Your task to perform on an android device: see tabs open on other devices in the chrome app Image 0: 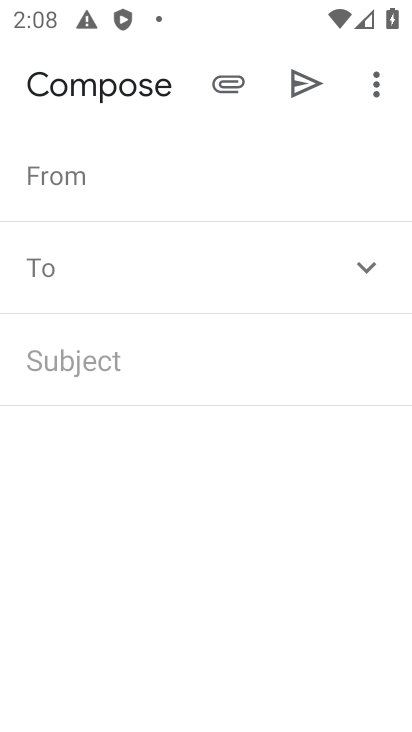
Step 0: drag from (170, 621) to (125, 134)
Your task to perform on an android device: see tabs open on other devices in the chrome app Image 1: 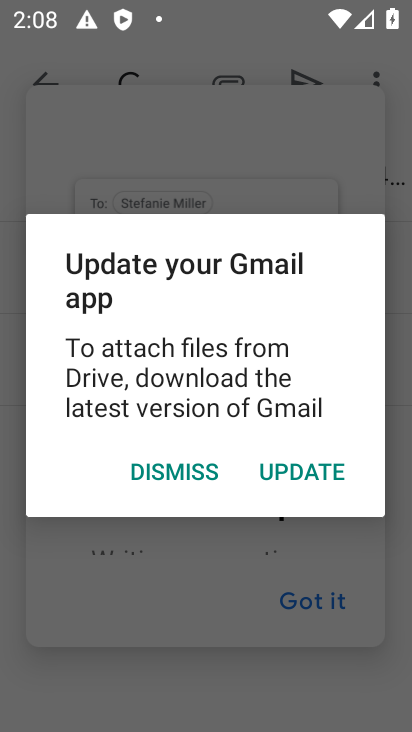
Step 1: press home button
Your task to perform on an android device: see tabs open on other devices in the chrome app Image 2: 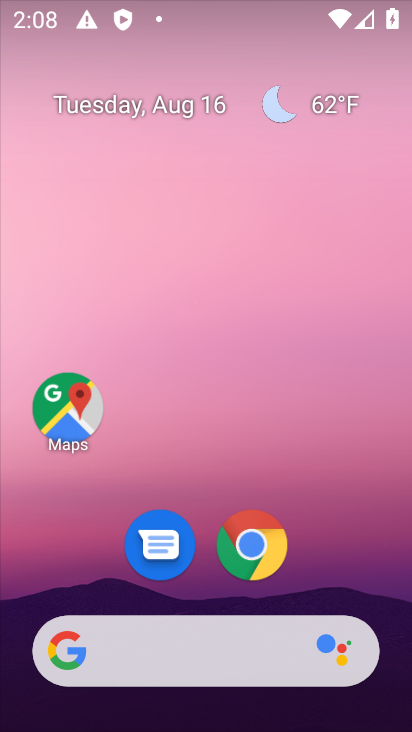
Step 2: drag from (223, 614) to (226, 173)
Your task to perform on an android device: see tabs open on other devices in the chrome app Image 3: 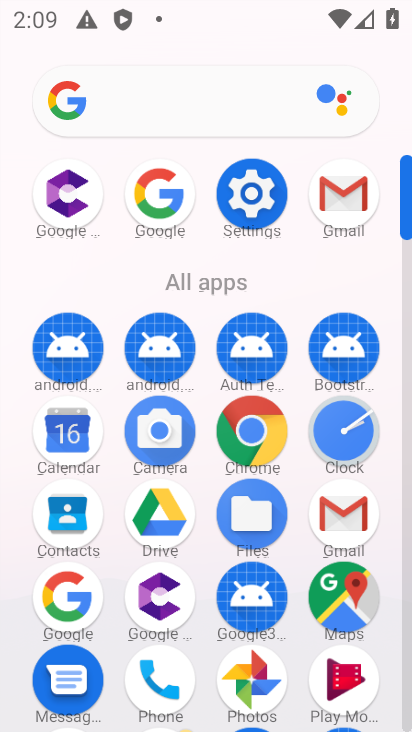
Step 3: click (264, 422)
Your task to perform on an android device: see tabs open on other devices in the chrome app Image 4: 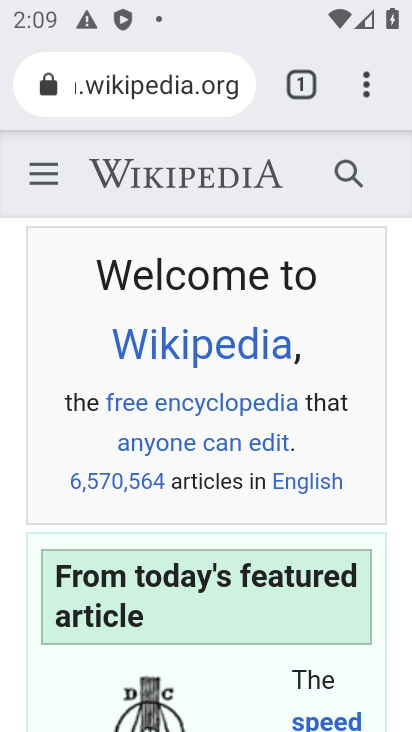
Step 4: click (302, 83)
Your task to perform on an android device: see tabs open on other devices in the chrome app Image 5: 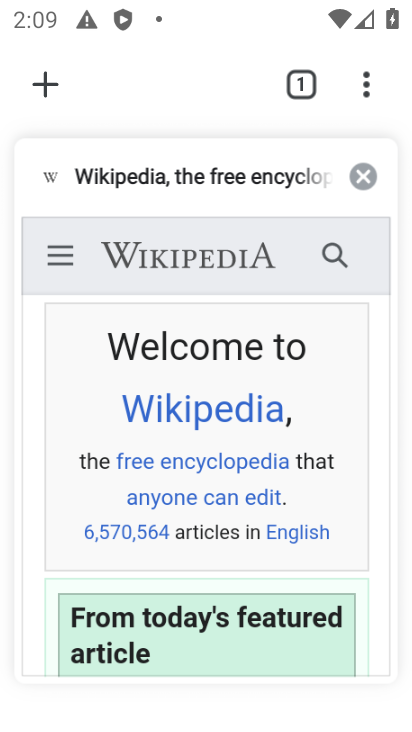
Step 5: task complete